Your task to perform on an android device: turn off location history Image 0: 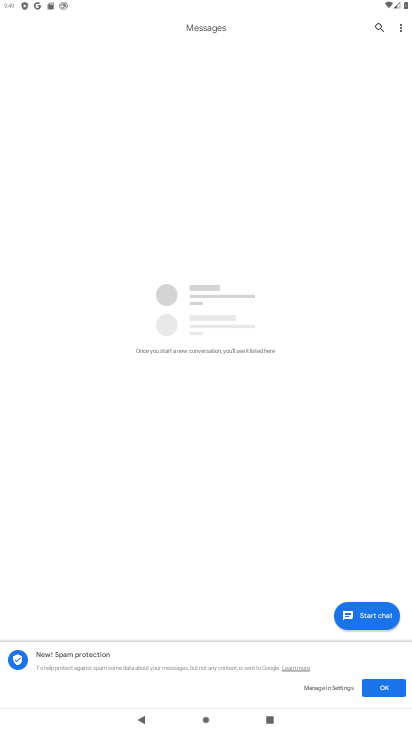
Step 0: press home button
Your task to perform on an android device: turn off location history Image 1: 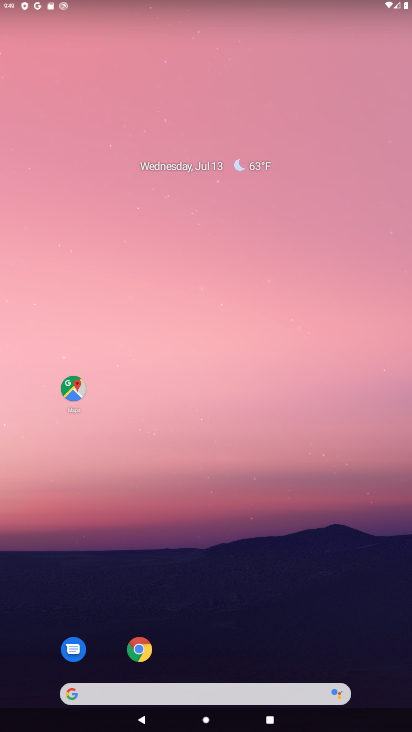
Step 1: drag from (231, 700) to (358, 30)
Your task to perform on an android device: turn off location history Image 2: 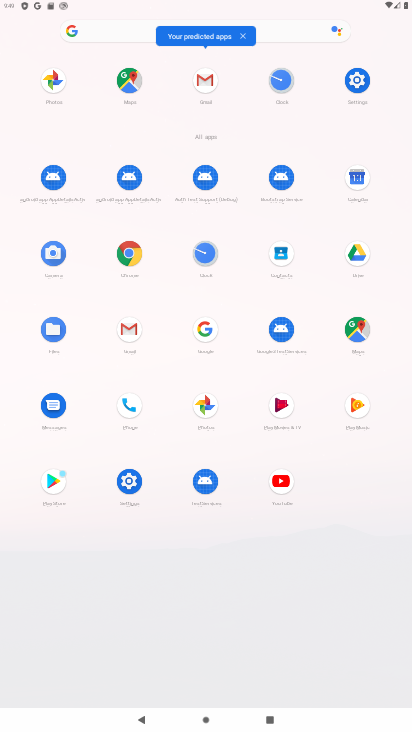
Step 2: click (359, 335)
Your task to perform on an android device: turn off location history Image 3: 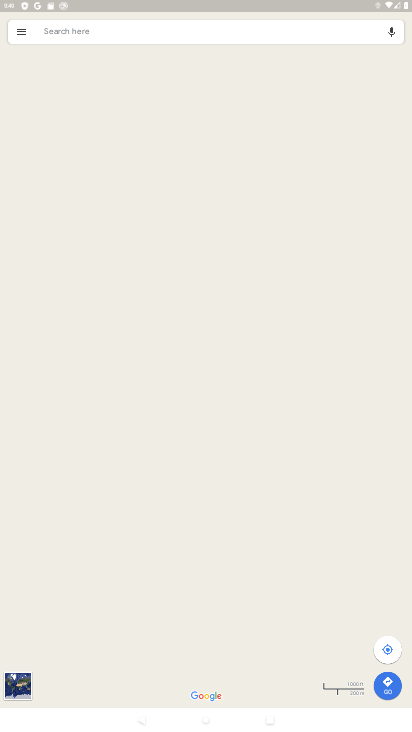
Step 3: click (23, 36)
Your task to perform on an android device: turn off location history Image 4: 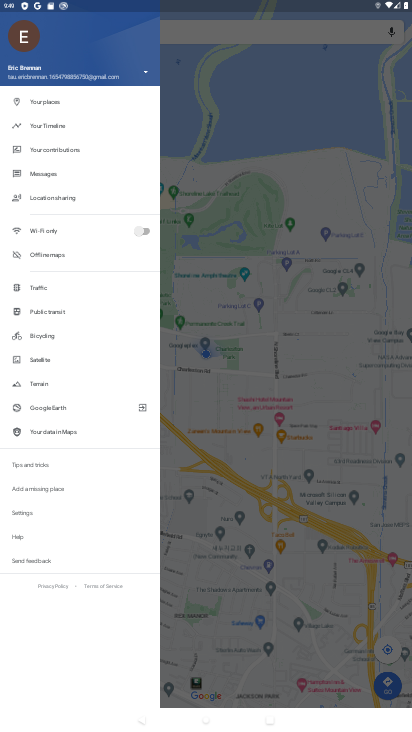
Step 4: click (48, 125)
Your task to perform on an android device: turn off location history Image 5: 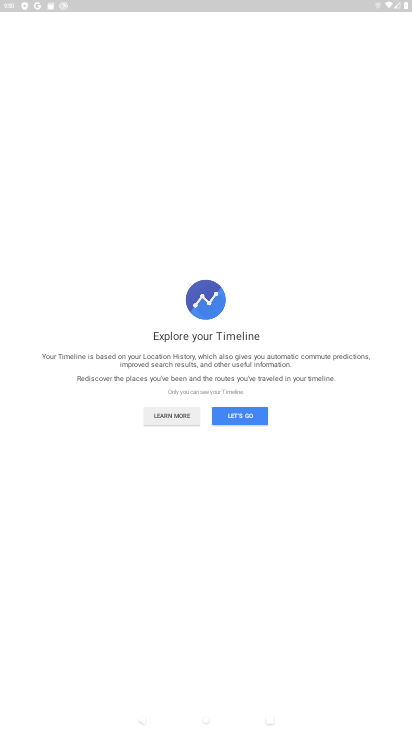
Step 5: click (233, 424)
Your task to perform on an android device: turn off location history Image 6: 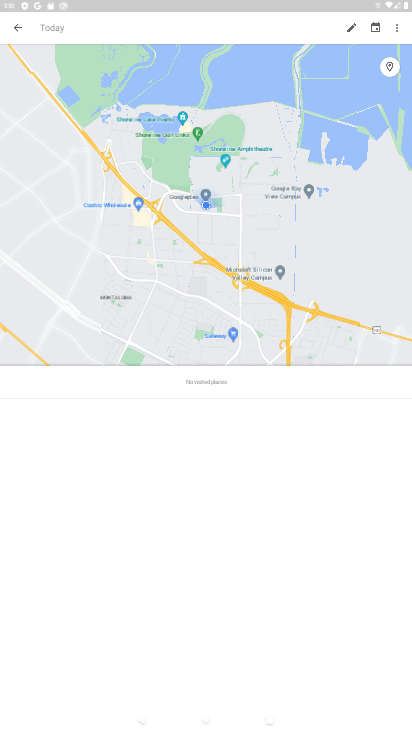
Step 6: click (397, 23)
Your task to perform on an android device: turn off location history Image 7: 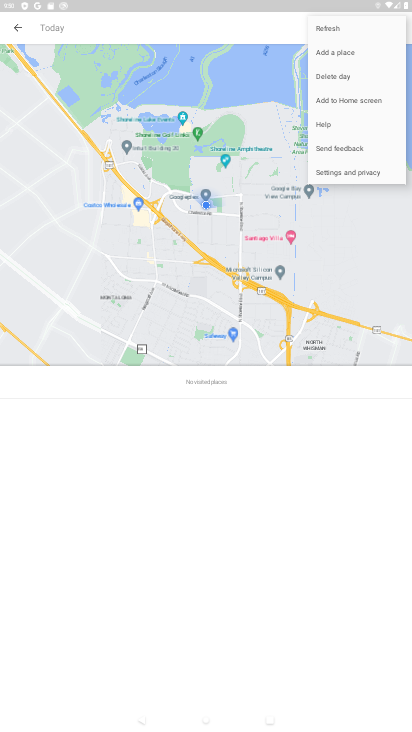
Step 7: click (354, 174)
Your task to perform on an android device: turn off location history Image 8: 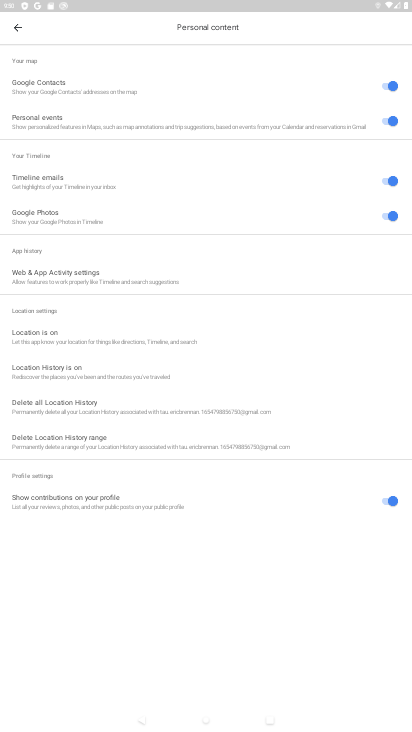
Step 8: click (74, 378)
Your task to perform on an android device: turn off location history Image 9: 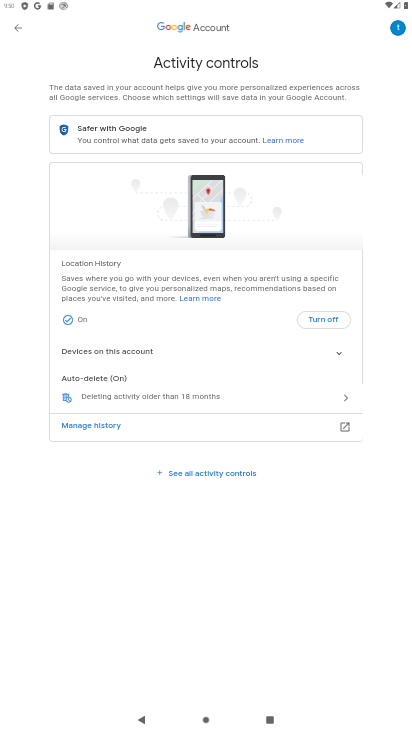
Step 9: click (318, 323)
Your task to perform on an android device: turn off location history Image 10: 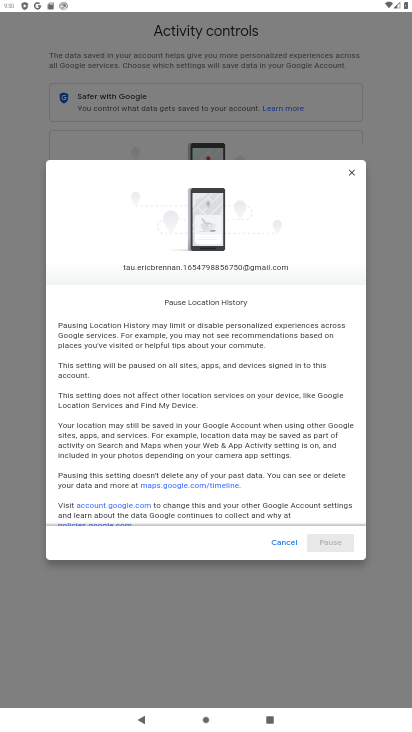
Step 10: drag from (309, 479) to (279, 117)
Your task to perform on an android device: turn off location history Image 11: 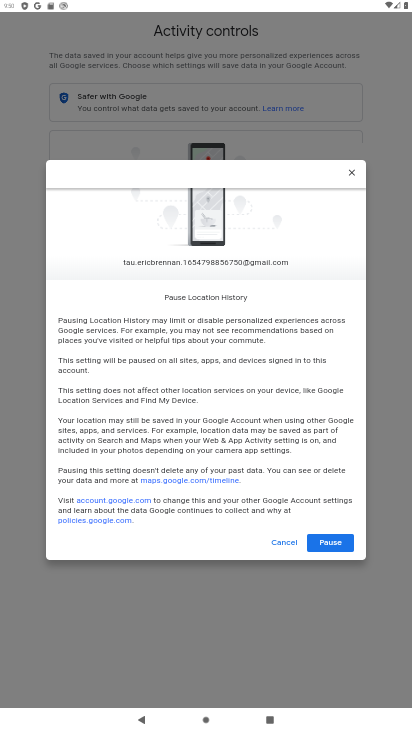
Step 11: click (325, 551)
Your task to perform on an android device: turn off location history Image 12: 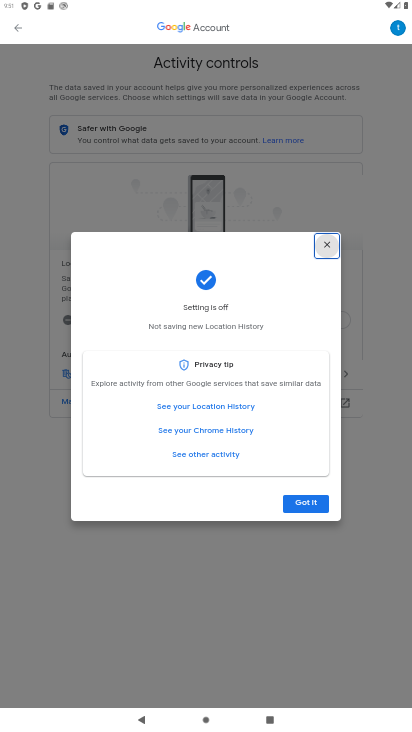
Step 12: click (304, 507)
Your task to perform on an android device: turn off location history Image 13: 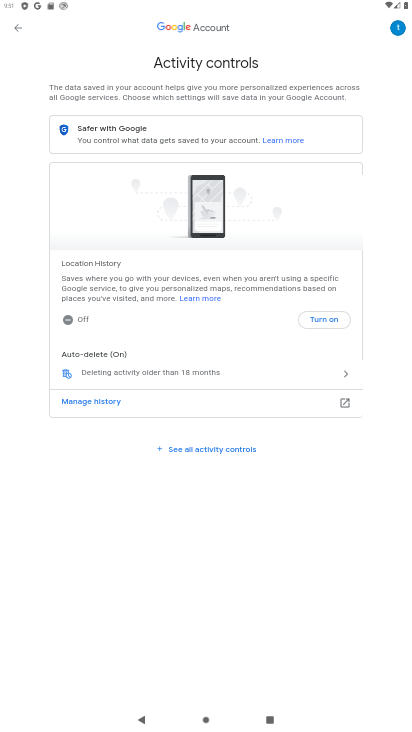
Step 13: task complete